Your task to perform on an android device: Open Chrome and go to settings Image 0: 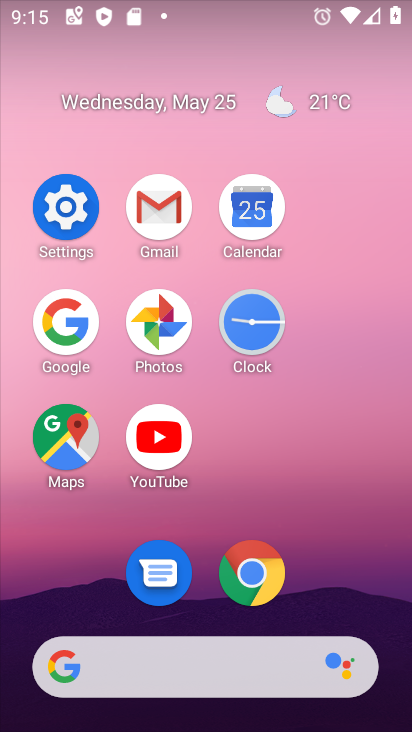
Step 0: click (278, 585)
Your task to perform on an android device: Open Chrome and go to settings Image 1: 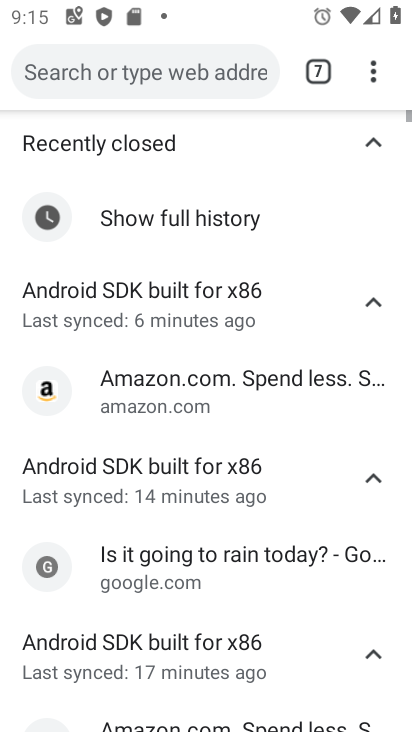
Step 1: click (378, 76)
Your task to perform on an android device: Open Chrome and go to settings Image 2: 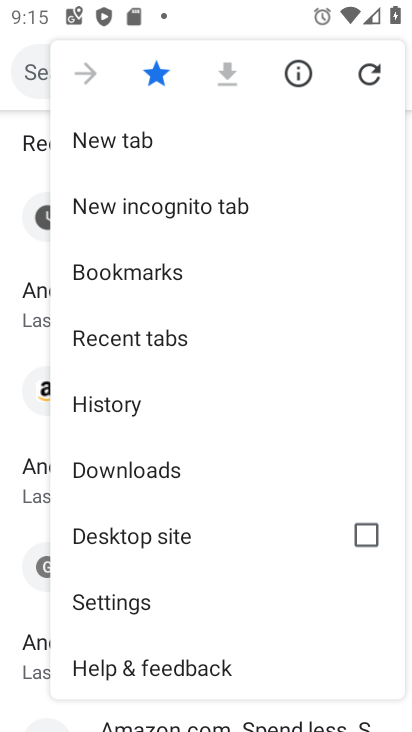
Step 2: click (185, 593)
Your task to perform on an android device: Open Chrome and go to settings Image 3: 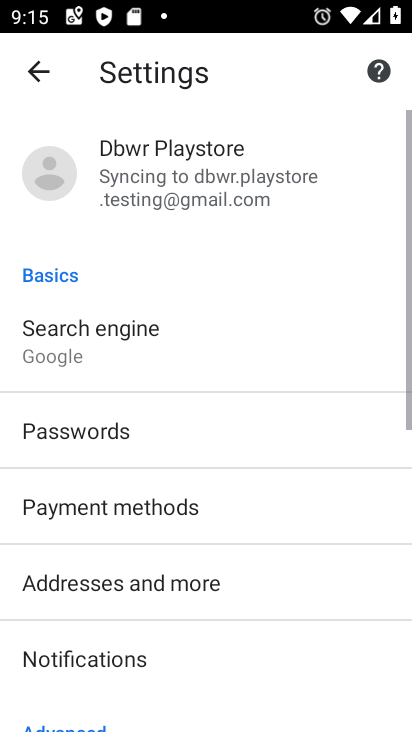
Step 3: task complete